Your task to perform on an android device: toggle notification dots Image 0: 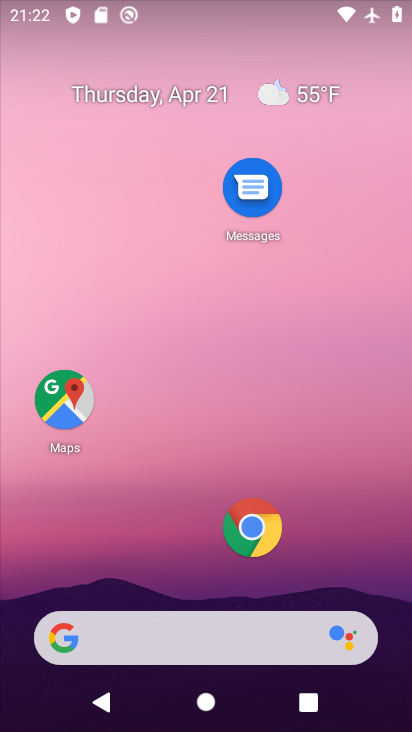
Step 0: drag from (226, 564) to (340, 85)
Your task to perform on an android device: toggle notification dots Image 1: 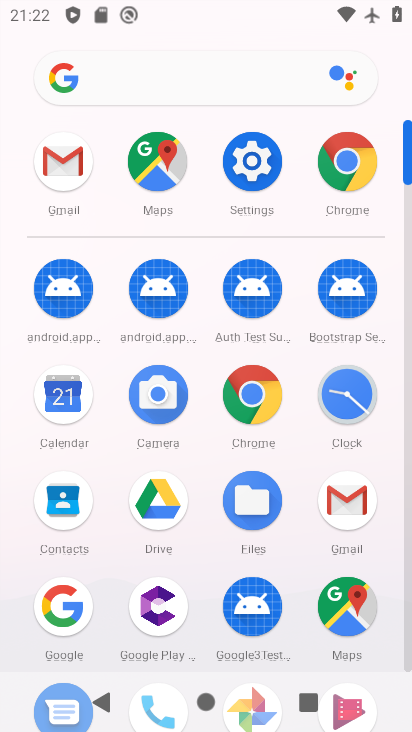
Step 1: click (243, 169)
Your task to perform on an android device: toggle notification dots Image 2: 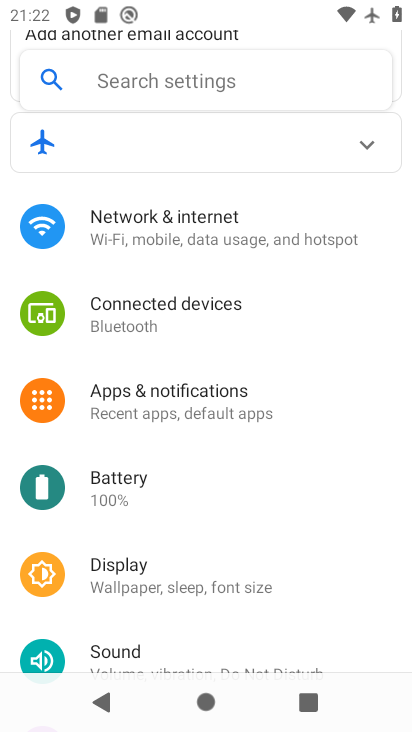
Step 2: click (195, 391)
Your task to perform on an android device: toggle notification dots Image 3: 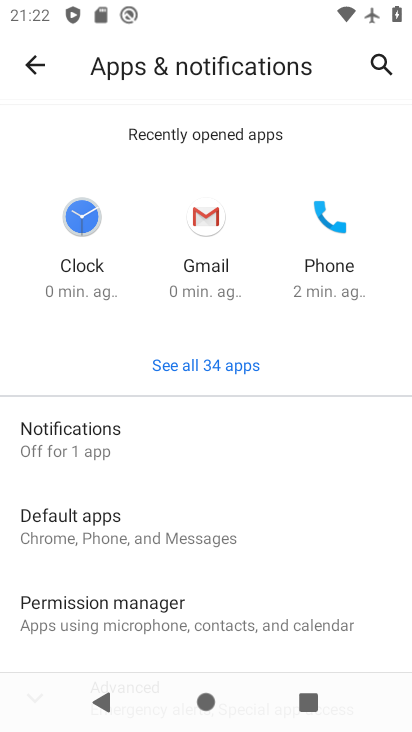
Step 3: click (100, 437)
Your task to perform on an android device: toggle notification dots Image 4: 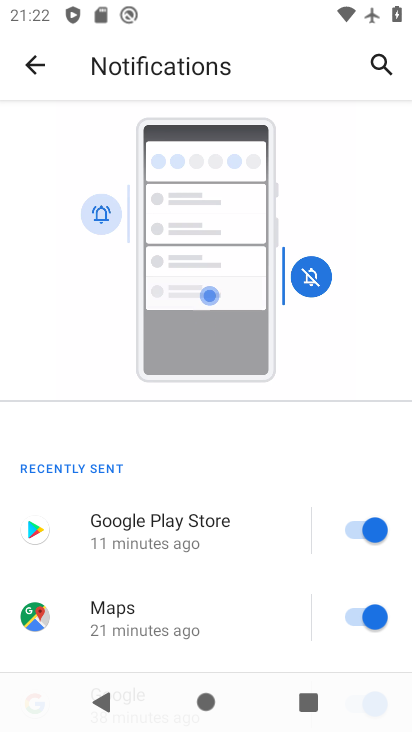
Step 4: drag from (162, 575) to (327, 226)
Your task to perform on an android device: toggle notification dots Image 5: 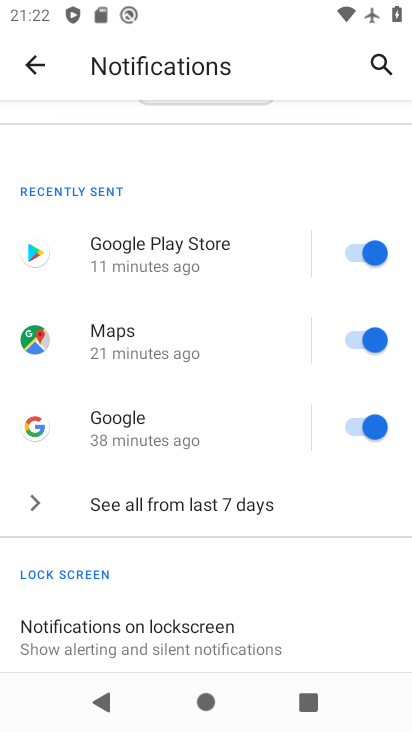
Step 5: drag from (208, 568) to (337, 208)
Your task to perform on an android device: toggle notification dots Image 6: 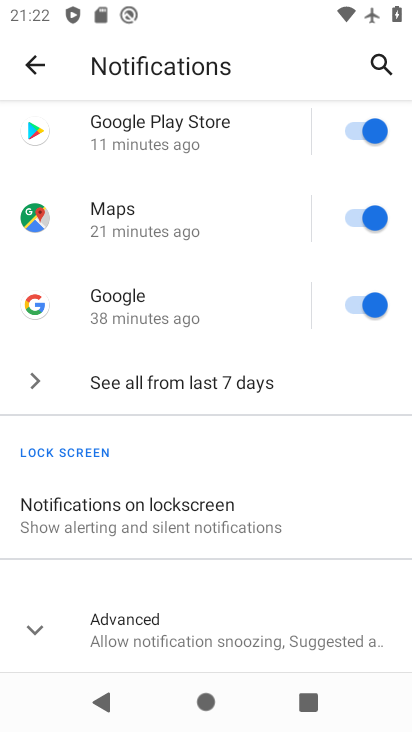
Step 6: click (86, 634)
Your task to perform on an android device: toggle notification dots Image 7: 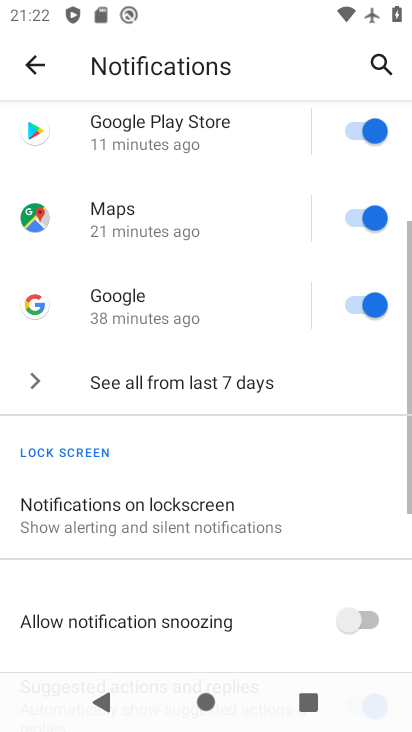
Step 7: drag from (135, 646) to (265, 185)
Your task to perform on an android device: toggle notification dots Image 8: 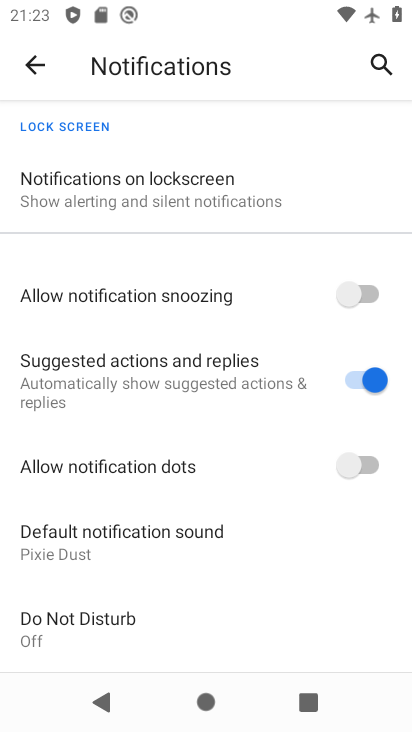
Step 8: click (371, 465)
Your task to perform on an android device: toggle notification dots Image 9: 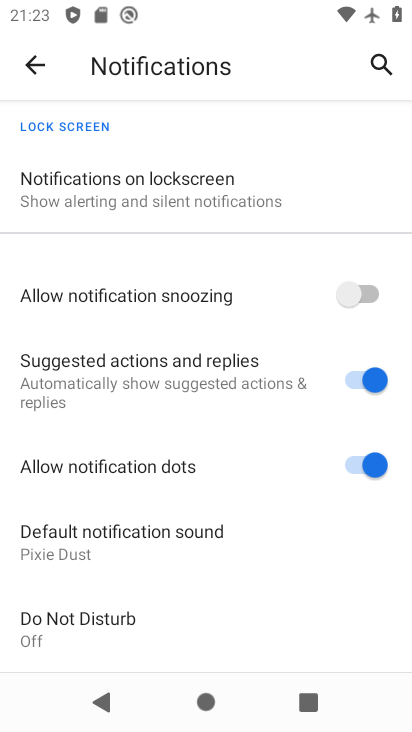
Step 9: task complete